Your task to perform on an android device: check google app version Image 0: 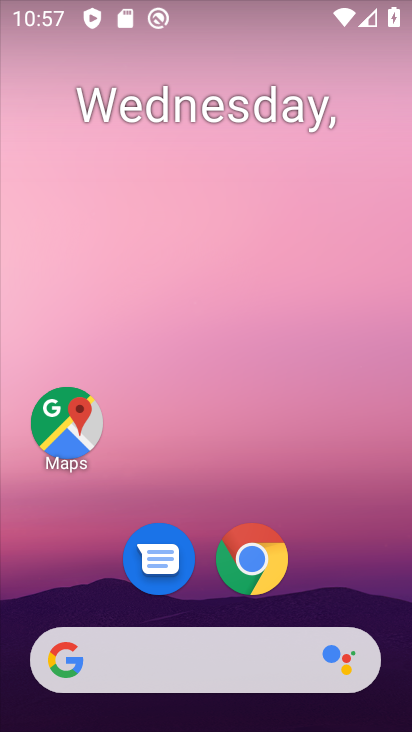
Step 0: drag from (346, 581) to (298, 139)
Your task to perform on an android device: check google app version Image 1: 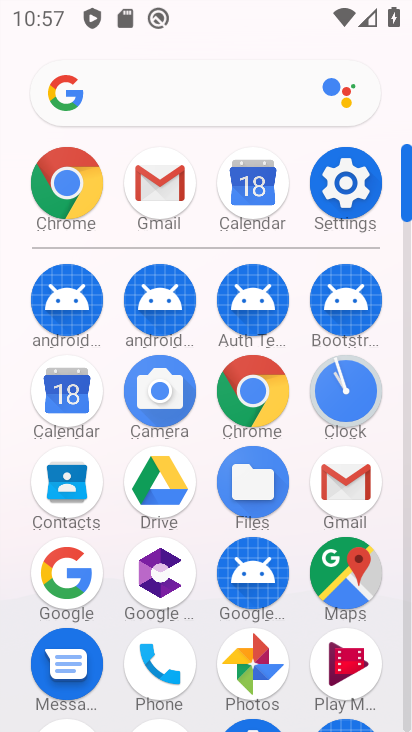
Step 1: click (364, 181)
Your task to perform on an android device: check google app version Image 2: 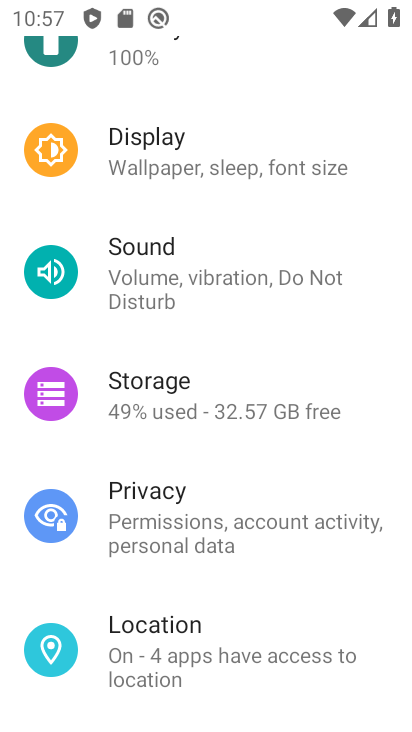
Step 2: drag from (208, 645) to (225, 225)
Your task to perform on an android device: check google app version Image 3: 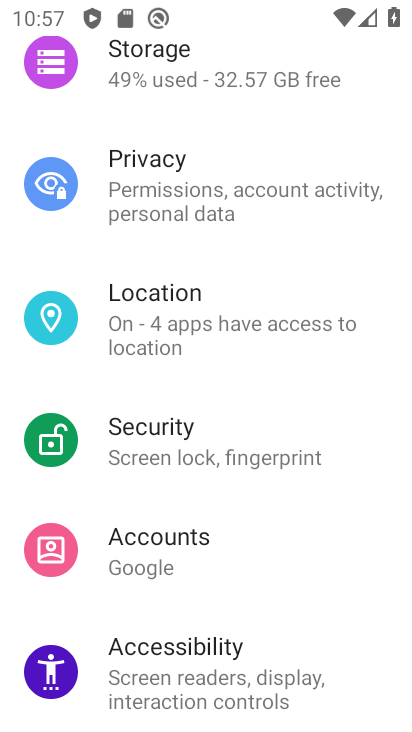
Step 3: drag from (205, 637) to (277, 248)
Your task to perform on an android device: check google app version Image 4: 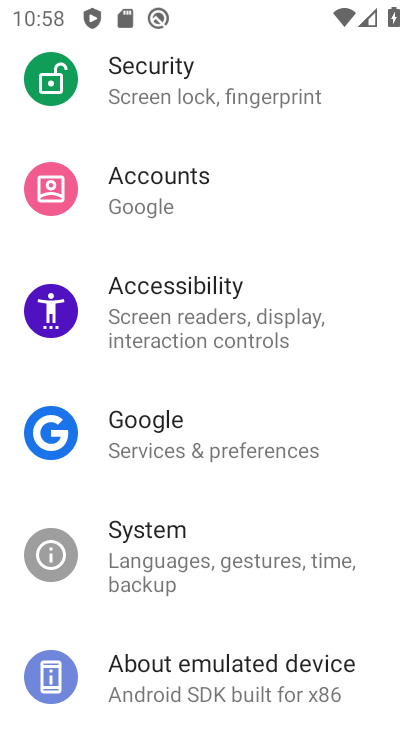
Step 4: drag from (250, 654) to (309, 229)
Your task to perform on an android device: check google app version Image 5: 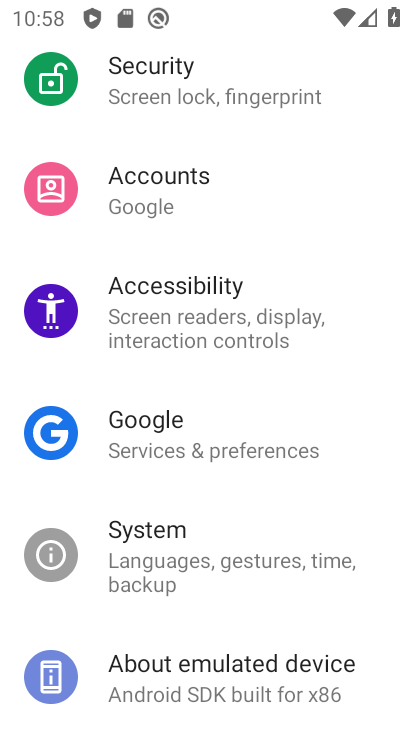
Step 5: press home button
Your task to perform on an android device: check google app version Image 6: 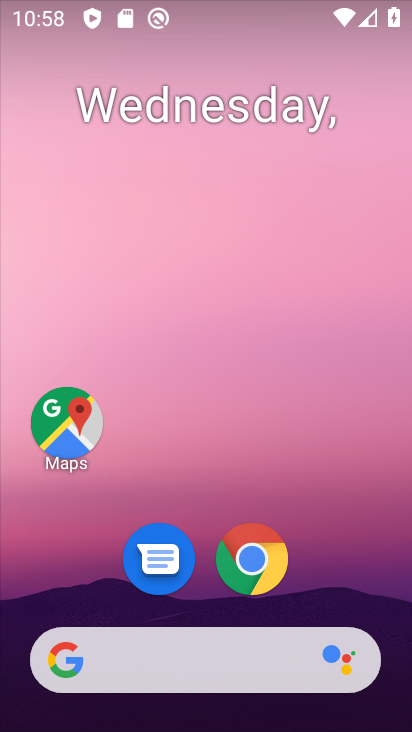
Step 6: drag from (345, 579) to (315, 102)
Your task to perform on an android device: check google app version Image 7: 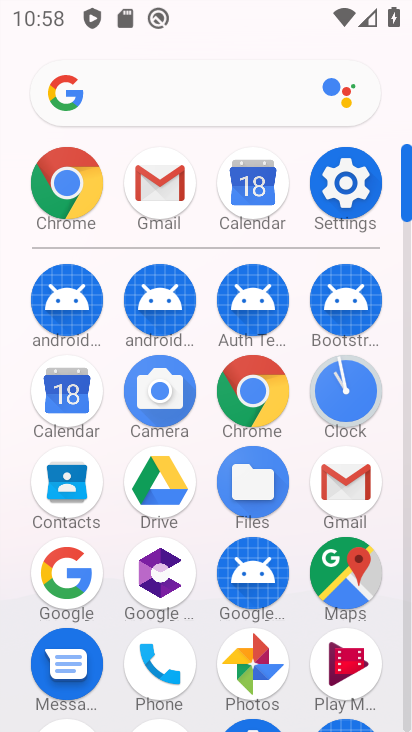
Step 7: click (51, 576)
Your task to perform on an android device: check google app version Image 8: 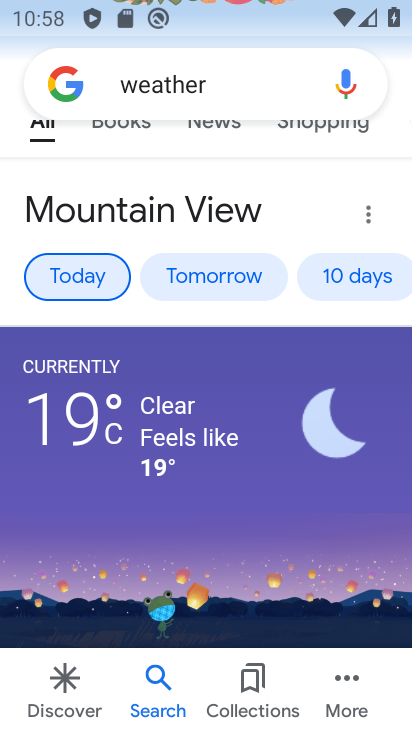
Step 8: click (343, 708)
Your task to perform on an android device: check google app version Image 9: 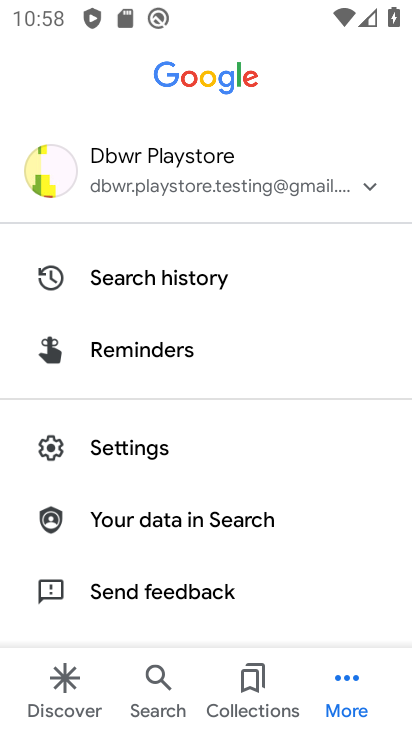
Step 9: click (125, 462)
Your task to perform on an android device: check google app version Image 10: 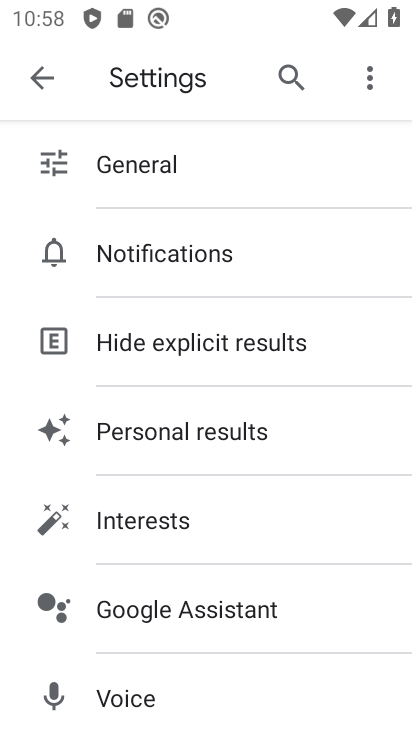
Step 10: drag from (168, 619) to (267, 121)
Your task to perform on an android device: check google app version Image 11: 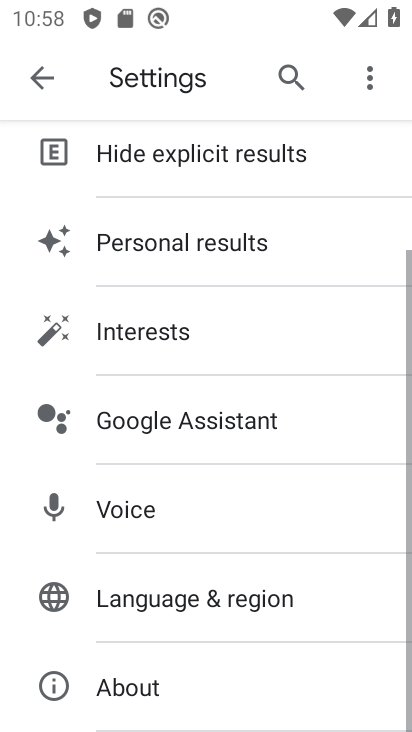
Step 11: click (188, 689)
Your task to perform on an android device: check google app version Image 12: 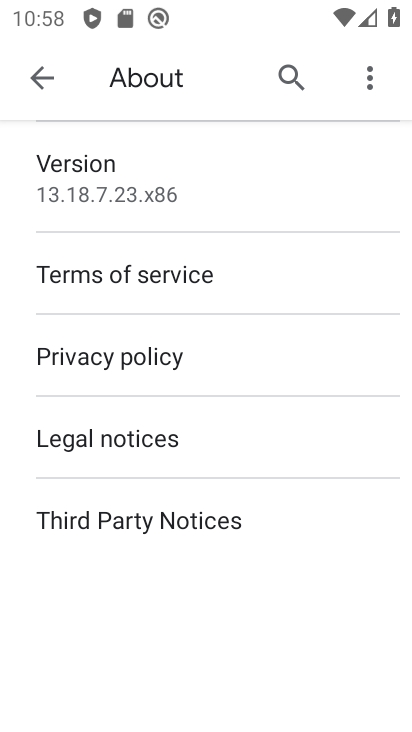
Step 12: click (135, 192)
Your task to perform on an android device: check google app version Image 13: 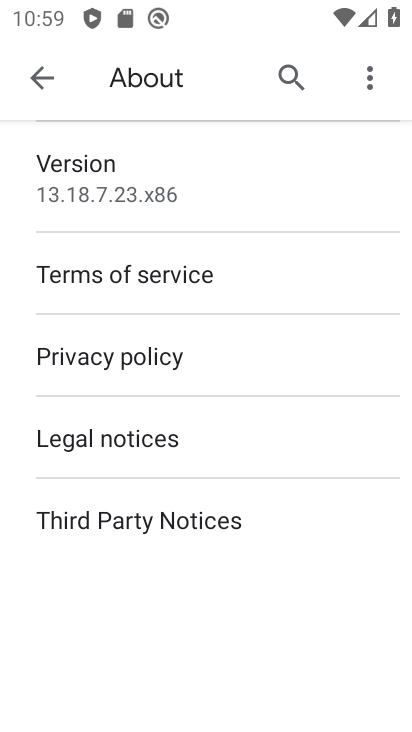
Step 13: click (114, 197)
Your task to perform on an android device: check google app version Image 14: 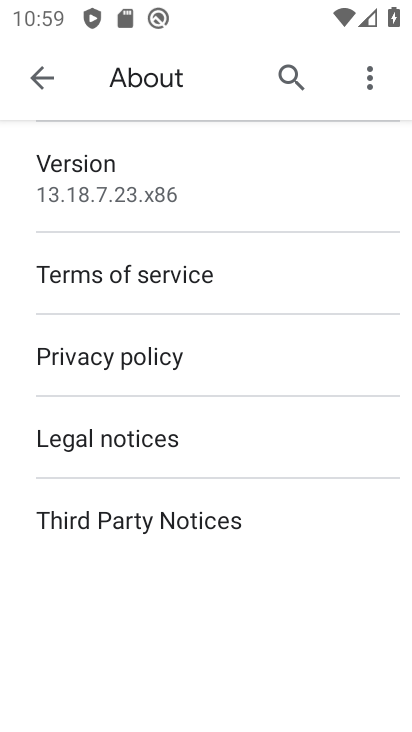
Step 14: task complete